Your task to perform on an android device: Open CNN.com Image 0: 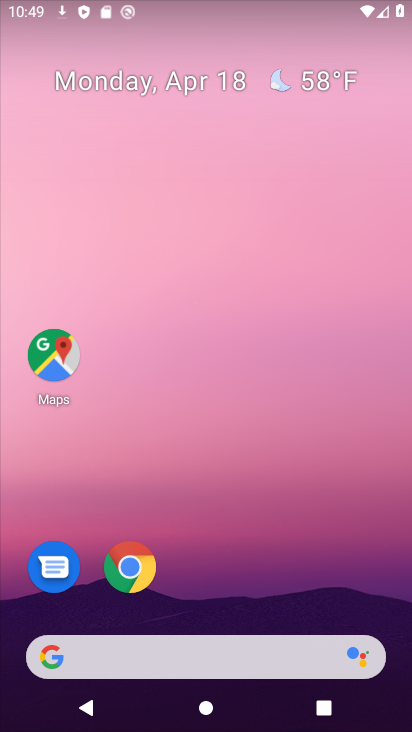
Step 0: click (131, 569)
Your task to perform on an android device: Open CNN.com Image 1: 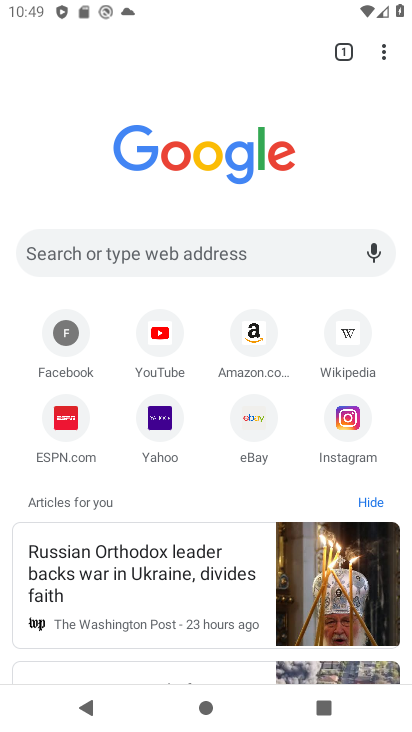
Step 1: click (88, 245)
Your task to perform on an android device: Open CNN.com Image 2: 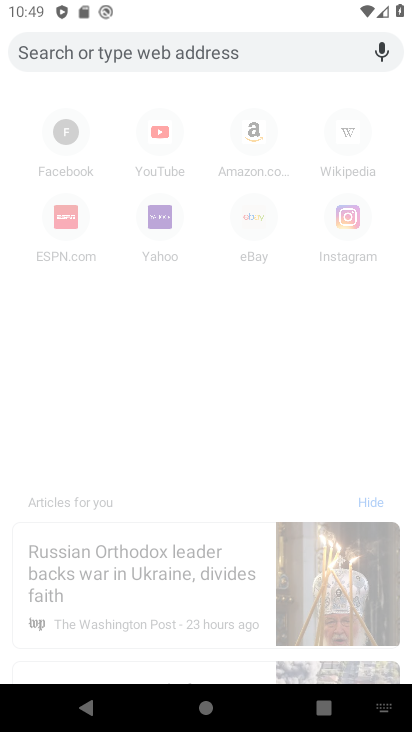
Step 2: type "cnn.com"
Your task to perform on an android device: Open CNN.com Image 3: 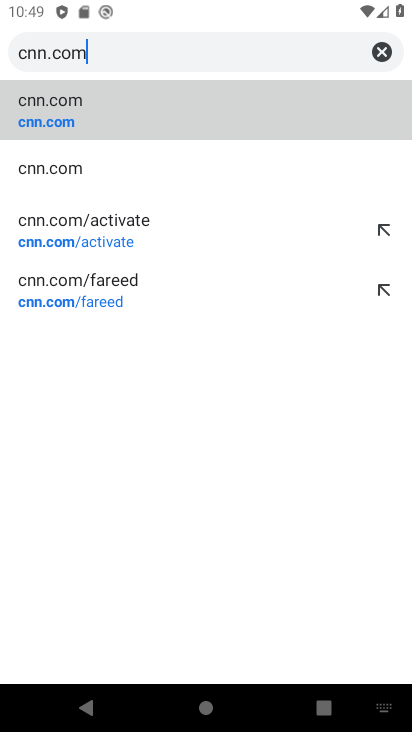
Step 3: click (53, 117)
Your task to perform on an android device: Open CNN.com Image 4: 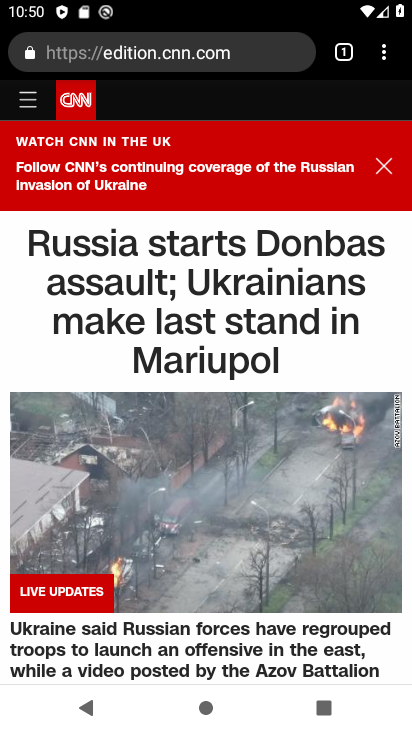
Step 4: task complete